Your task to perform on an android device: add a label to a message in the gmail app Image 0: 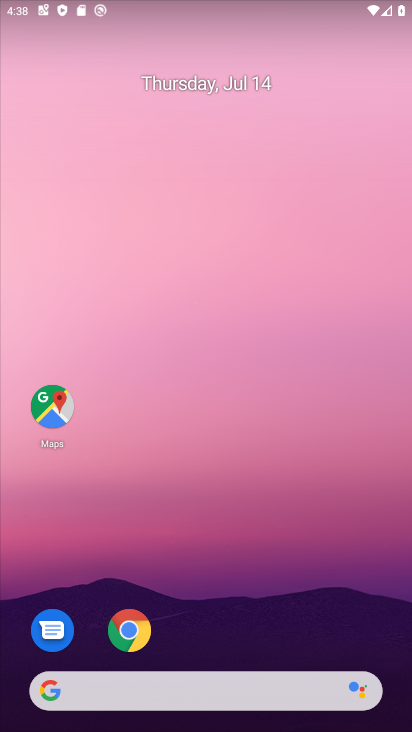
Step 0: drag from (312, 464) to (329, 79)
Your task to perform on an android device: add a label to a message in the gmail app Image 1: 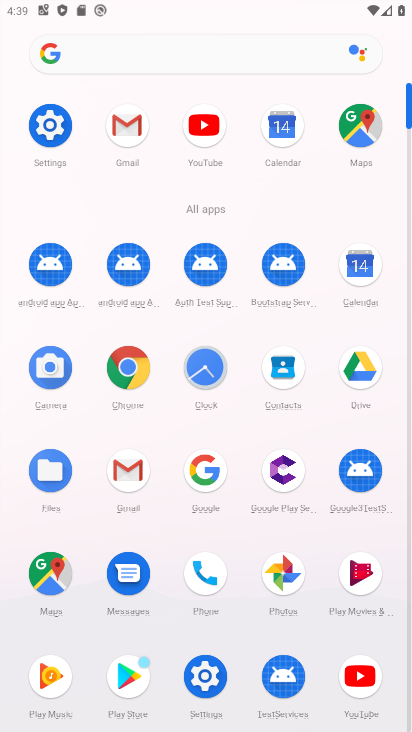
Step 1: click (110, 118)
Your task to perform on an android device: add a label to a message in the gmail app Image 2: 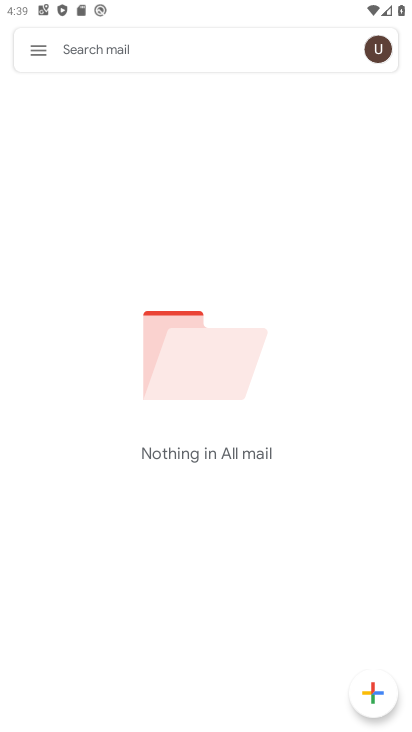
Step 2: task complete